Your task to perform on an android device: turn off notifications settings in the gmail app Image 0: 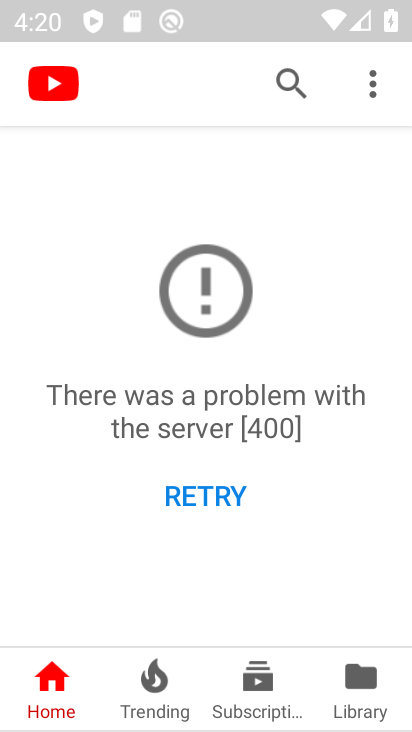
Step 0: press back button
Your task to perform on an android device: turn off notifications settings in the gmail app Image 1: 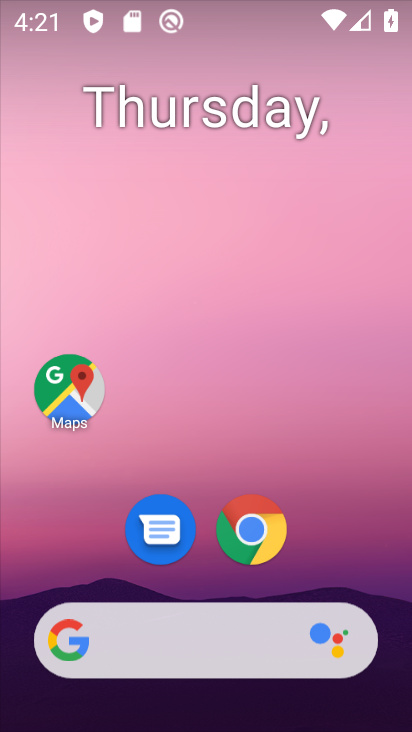
Step 1: drag from (209, 602) to (278, 133)
Your task to perform on an android device: turn off notifications settings in the gmail app Image 2: 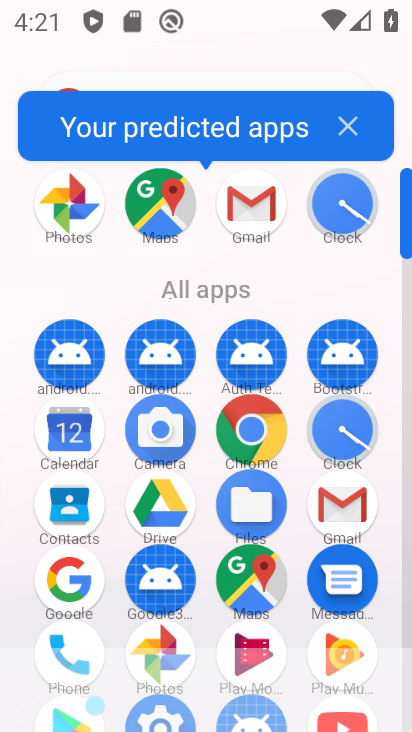
Step 2: drag from (180, 644) to (224, 448)
Your task to perform on an android device: turn off notifications settings in the gmail app Image 3: 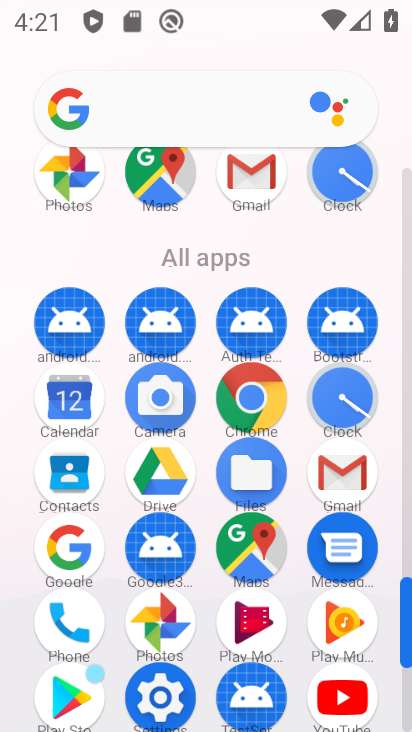
Step 3: click (327, 470)
Your task to perform on an android device: turn off notifications settings in the gmail app Image 4: 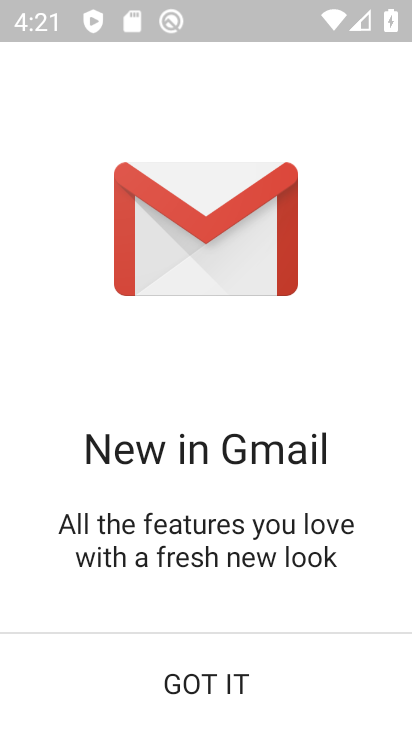
Step 4: click (222, 678)
Your task to perform on an android device: turn off notifications settings in the gmail app Image 5: 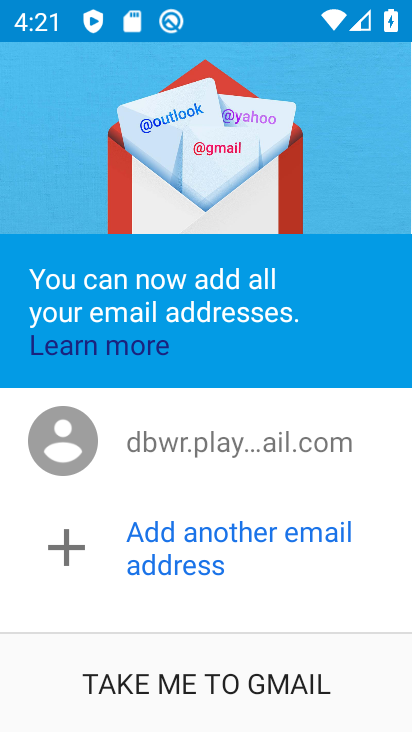
Step 5: click (227, 685)
Your task to perform on an android device: turn off notifications settings in the gmail app Image 6: 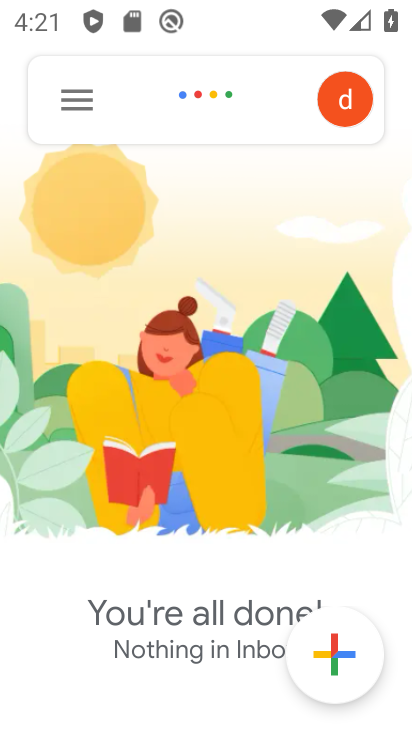
Step 6: click (78, 97)
Your task to perform on an android device: turn off notifications settings in the gmail app Image 7: 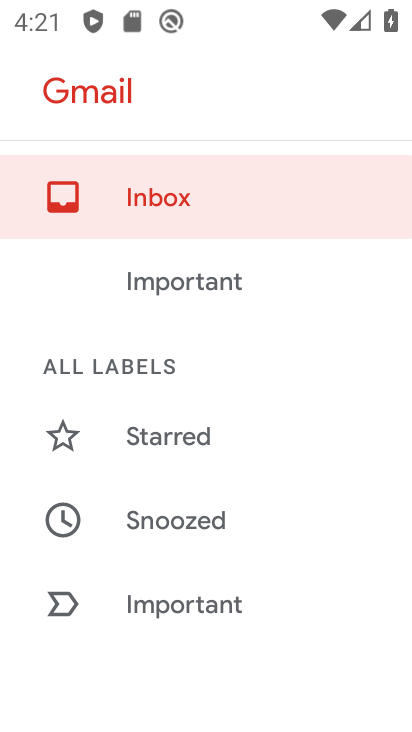
Step 7: drag from (163, 621) to (332, 223)
Your task to perform on an android device: turn off notifications settings in the gmail app Image 8: 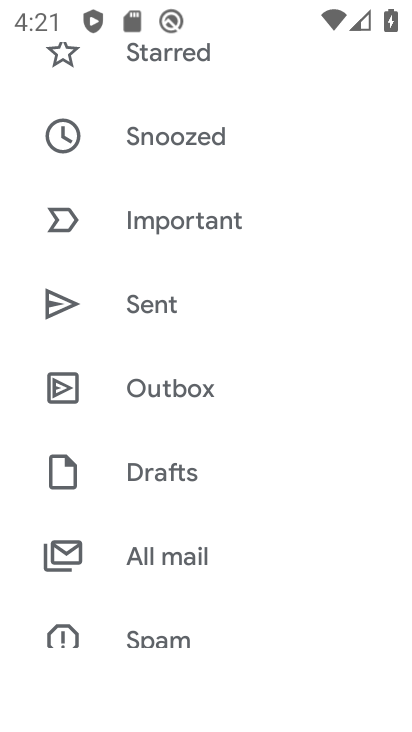
Step 8: drag from (206, 567) to (349, 197)
Your task to perform on an android device: turn off notifications settings in the gmail app Image 9: 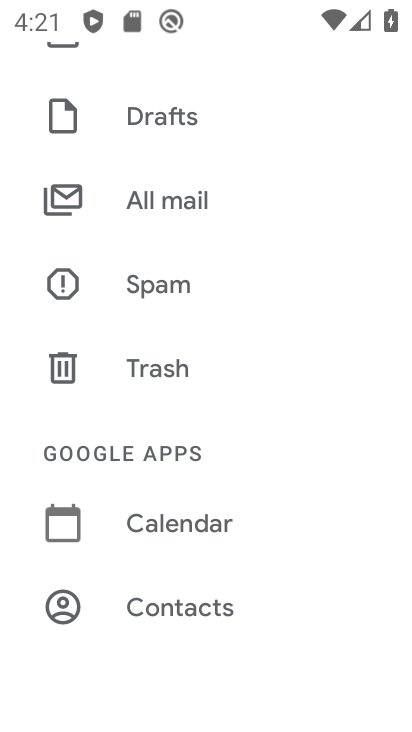
Step 9: drag from (213, 582) to (300, 215)
Your task to perform on an android device: turn off notifications settings in the gmail app Image 10: 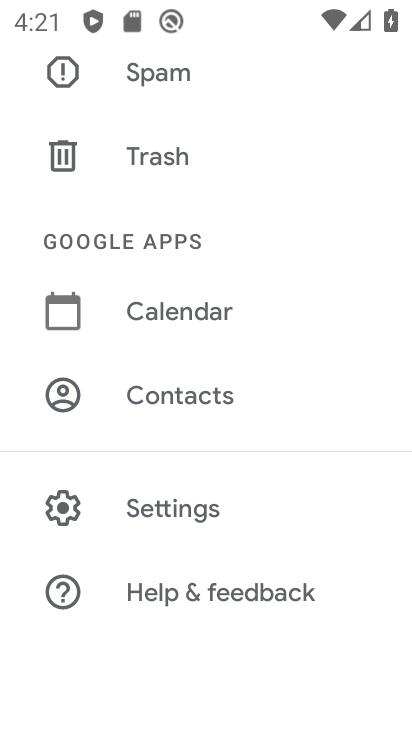
Step 10: click (208, 517)
Your task to perform on an android device: turn off notifications settings in the gmail app Image 11: 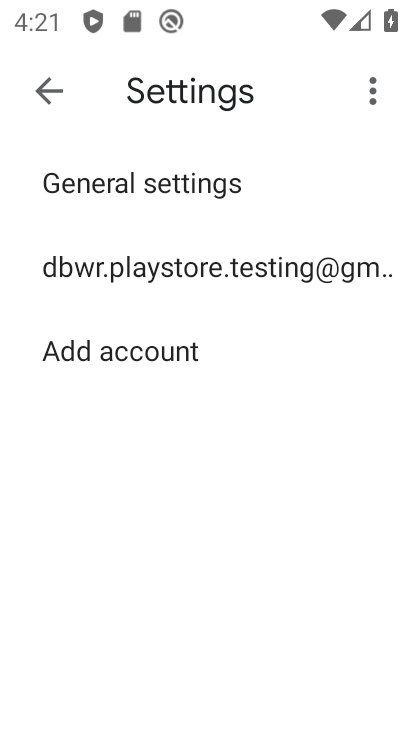
Step 11: click (317, 288)
Your task to perform on an android device: turn off notifications settings in the gmail app Image 12: 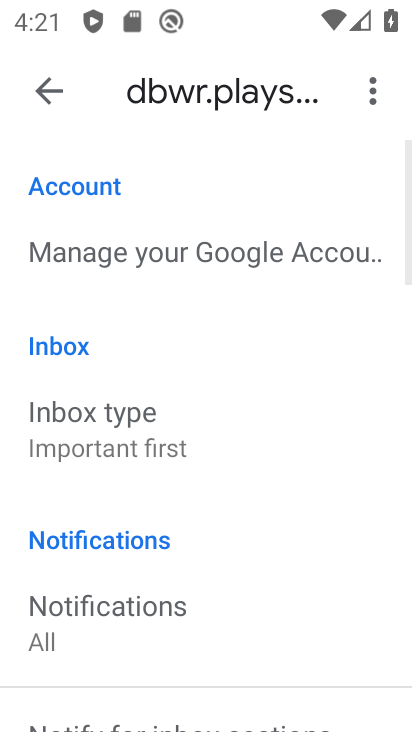
Step 12: drag from (215, 620) to (357, 241)
Your task to perform on an android device: turn off notifications settings in the gmail app Image 13: 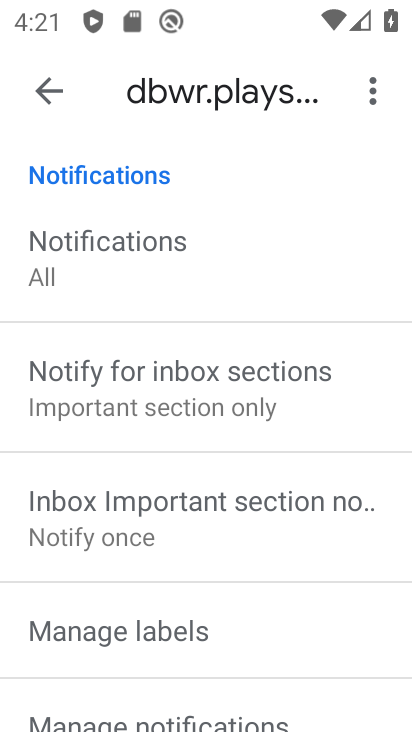
Step 13: drag from (194, 698) to (307, 413)
Your task to perform on an android device: turn off notifications settings in the gmail app Image 14: 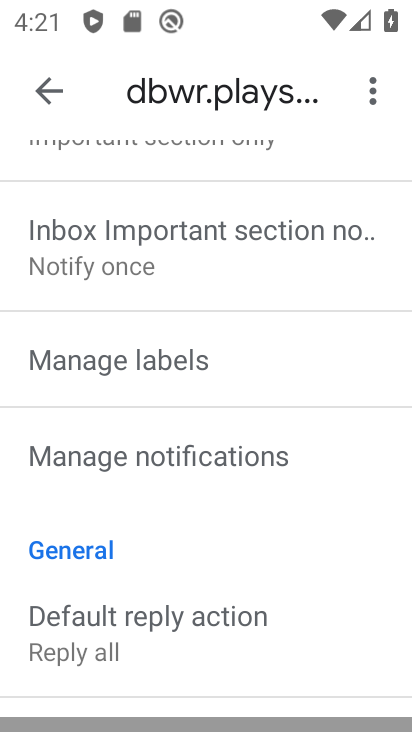
Step 14: click (232, 468)
Your task to perform on an android device: turn off notifications settings in the gmail app Image 15: 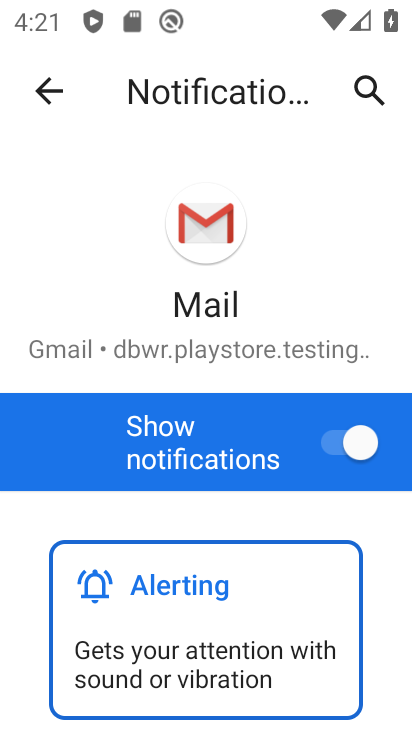
Step 15: click (330, 447)
Your task to perform on an android device: turn off notifications settings in the gmail app Image 16: 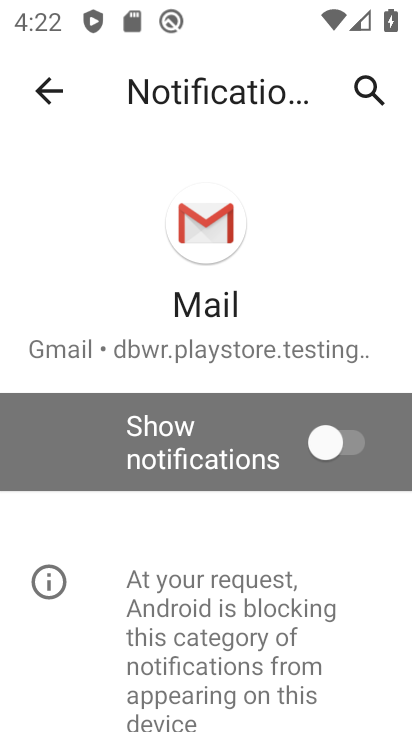
Step 16: task complete